Your task to perform on an android device: What's the weather today? Image 0: 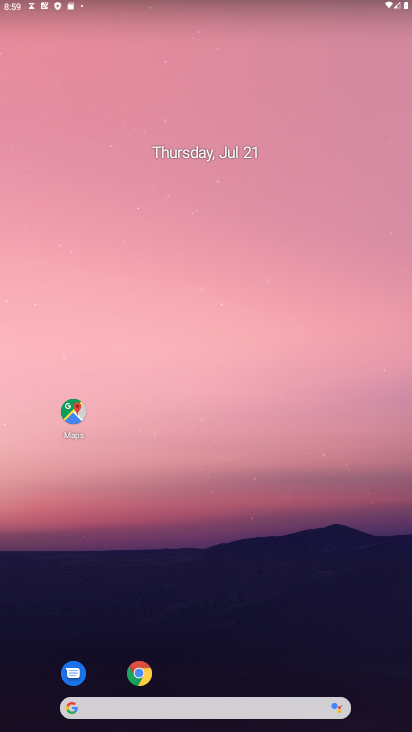
Step 0: click (144, 674)
Your task to perform on an android device: What's the weather today? Image 1: 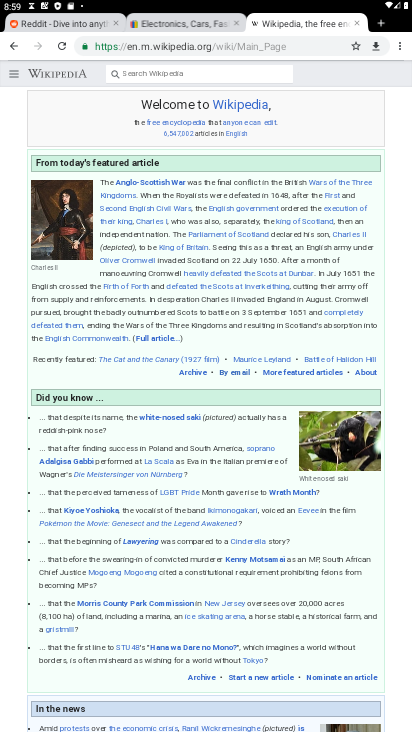
Step 1: click (356, 20)
Your task to perform on an android device: What's the weather today? Image 2: 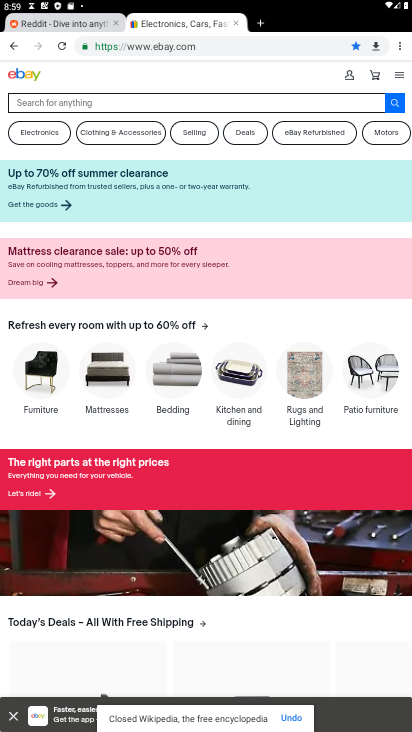
Step 2: click (235, 28)
Your task to perform on an android device: What's the weather today? Image 3: 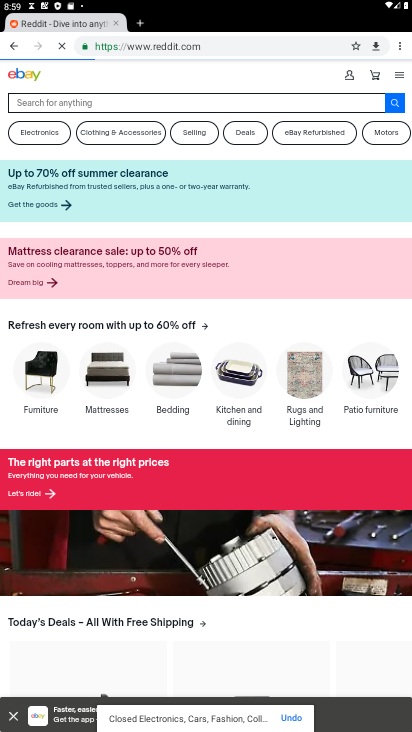
Step 3: click (175, 44)
Your task to perform on an android device: What's the weather today? Image 4: 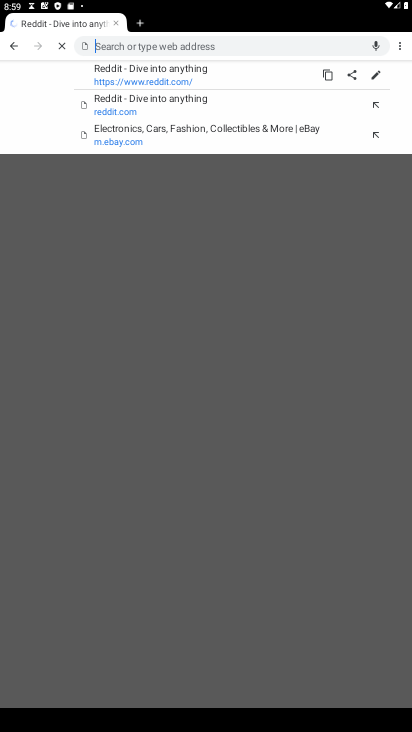
Step 4: type "weather today"
Your task to perform on an android device: What's the weather today? Image 5: 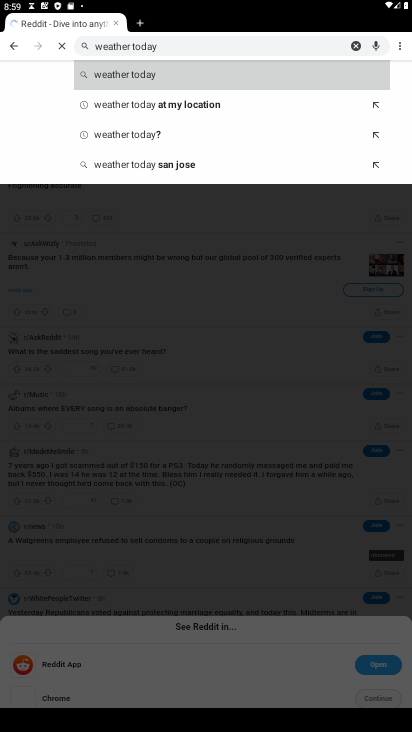
Step 5: click (169, 69)
Your task to perform on an android device: What's the weather today? Image 6: 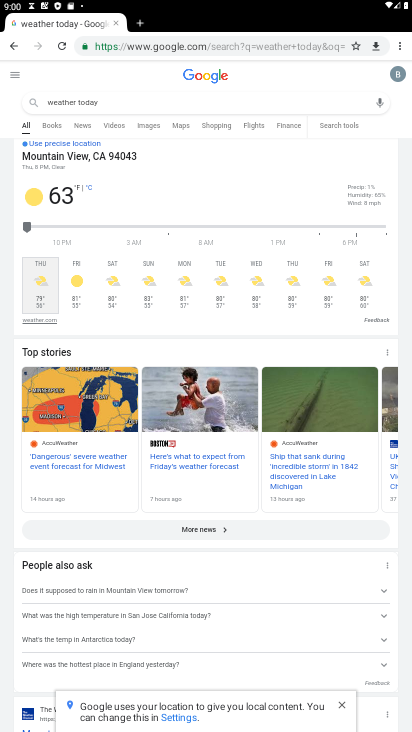
Step 6: task complete